Your task to perform on an android device: see creations saved in the google photos Image 0: 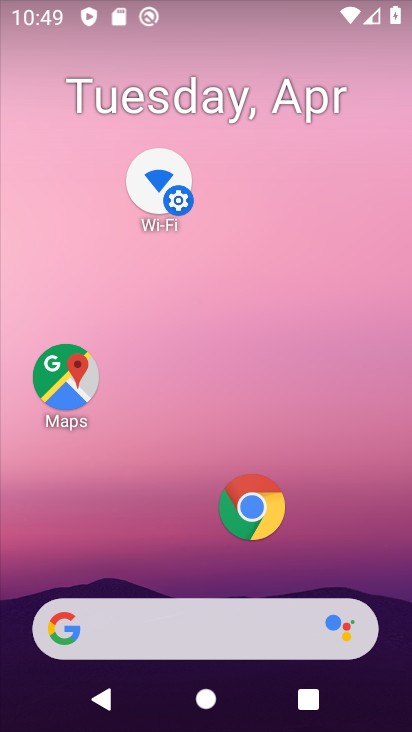
Step 0: drag from (45, 612) to (278, 186)
Your task to perform on an android device: see creations saved in the google photos Image 1: 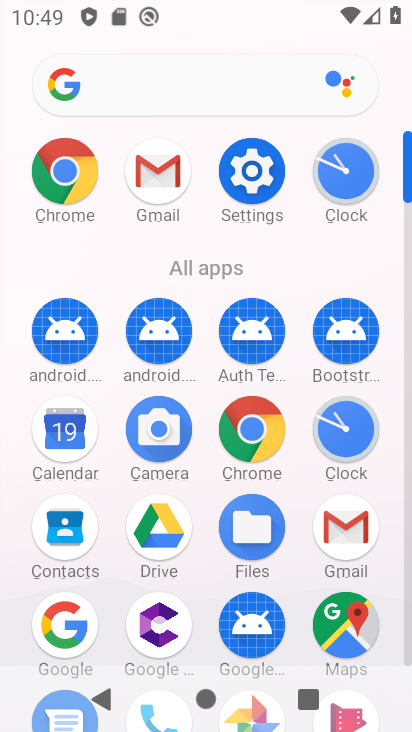
Step 1: drag from (46, 629) to (219, 297)
Your task to perform on an android device: see creations saved in the google photos Image 2: 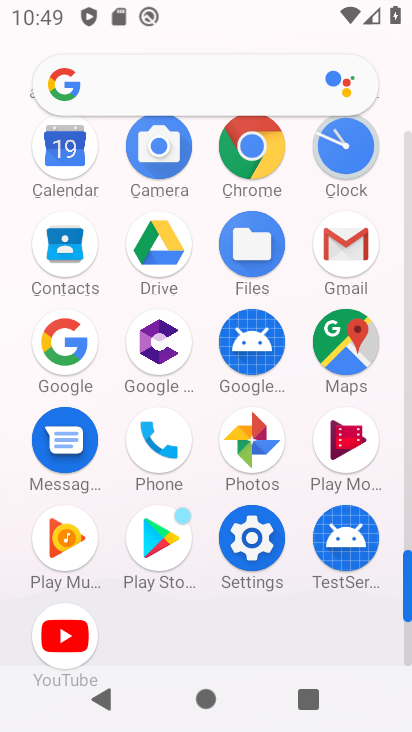
Step 2: click (248, 454)
Your task to perform on an android device: see creations saved in the google photos Image 3: 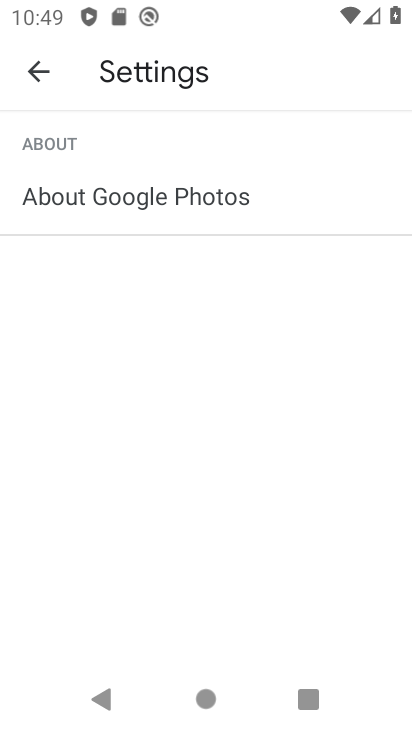
Step 3: press back button
Your task to perform on an android device: see creations saved in the google photos Image 4: 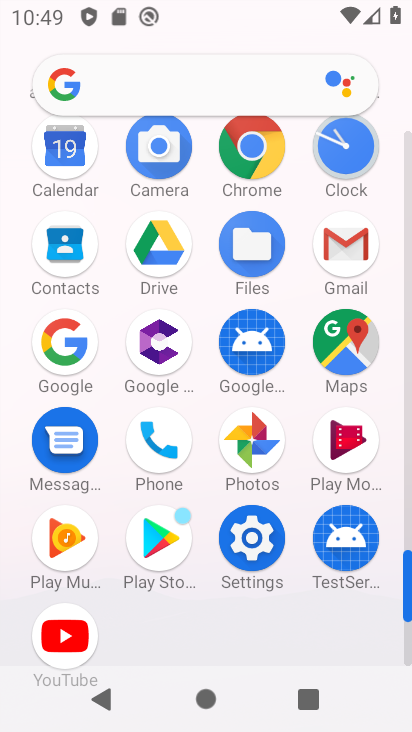
Step 4: click (262, 424)
Your task to perform on an android device: see creations saved in the google photos Image 5: 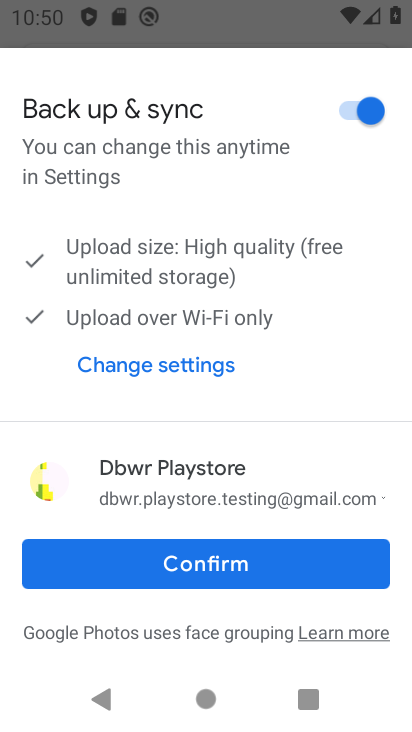
Step 5: click (178, 557)
Your task to perform on an android device: see creations saved in the google photos Image 6: 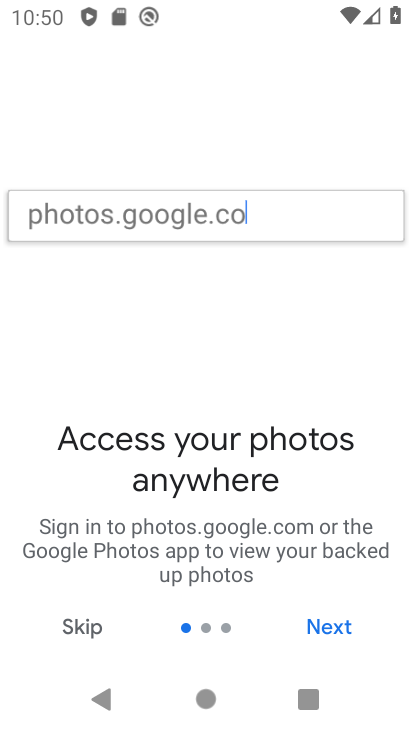
Step 6: click (324, 622)
Your task to perform on an android device: see creations saved in the google photos Image 7: 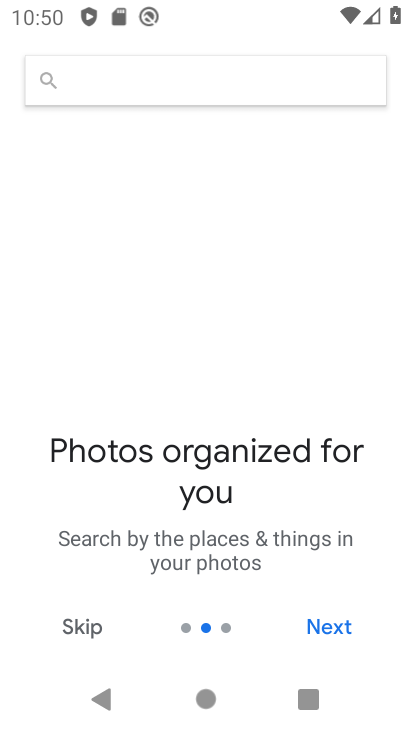
Step 7: click (323, 619)
Your task to perform on an android device: see creations saved in the google photos Image 8: 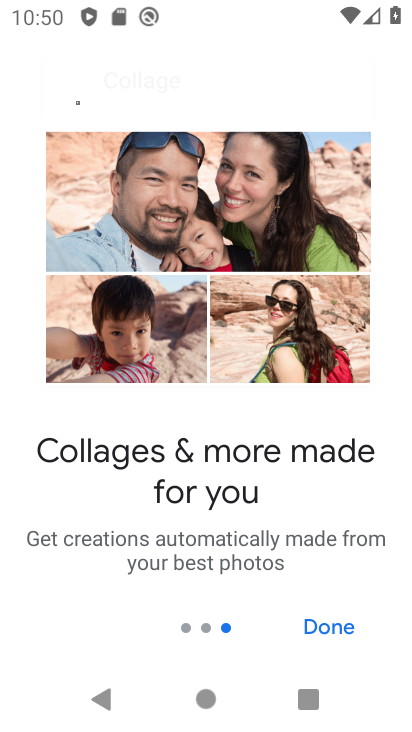
Step 8: click (322, 624)
Your task to perform on an android device: see creations saved in the google photos Image 9: 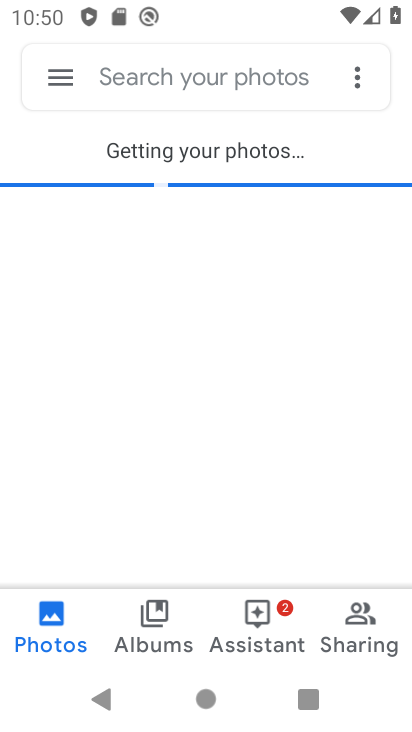
Step 9: click (197, 79)
Your task to perform on an android device: see creations saved in the google photos Image 10: 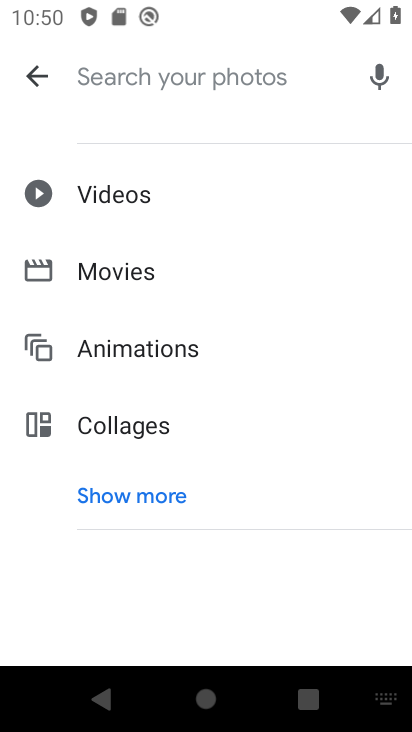
Step 10: click (142, 475)
Your task to perform on an android device: see creations saved in the google photos Image 11: 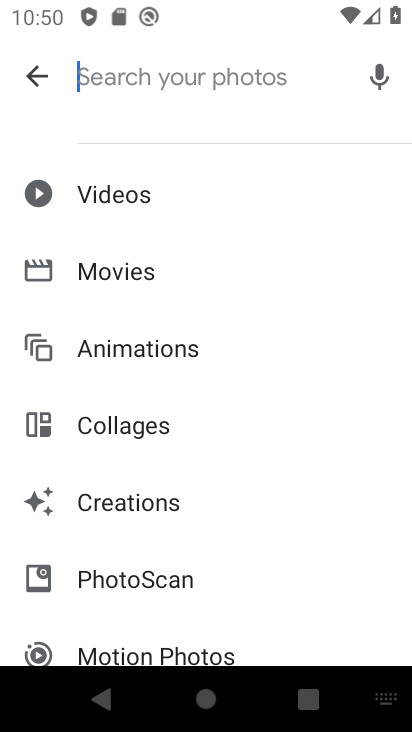
Step 11: click (142, 516)
Your task to perform on an android device: see creations saved in the google photos Image 12: 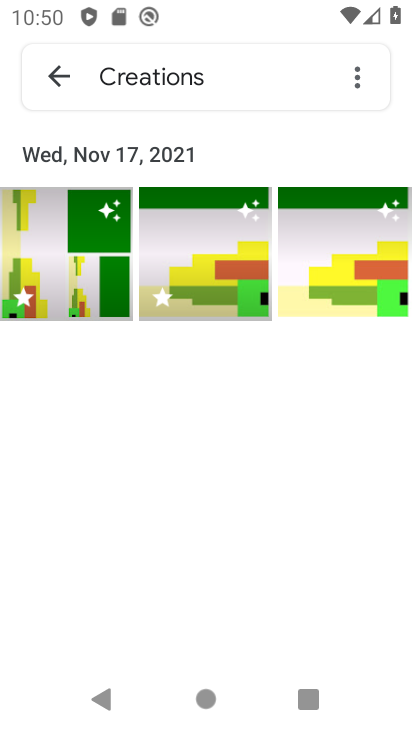
Step 12: task complete